Your task to perform on an android device: Go to network settings Image 0: 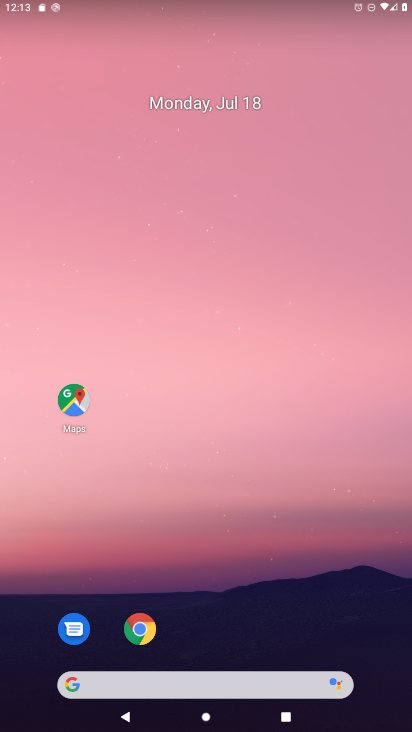
Step 0: drag from (203, 686) to (360, 72)
Your task to perform on an android device: Go to network settings Image 1: 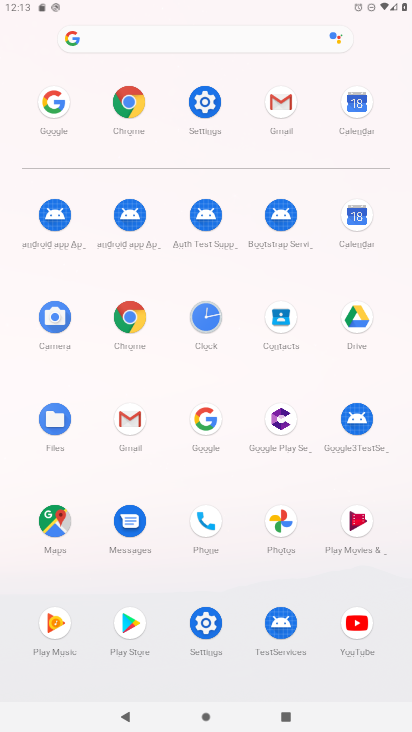
Step 1: click (204, 101)
Your task to perform on an android device: Go to network settings Image 2: 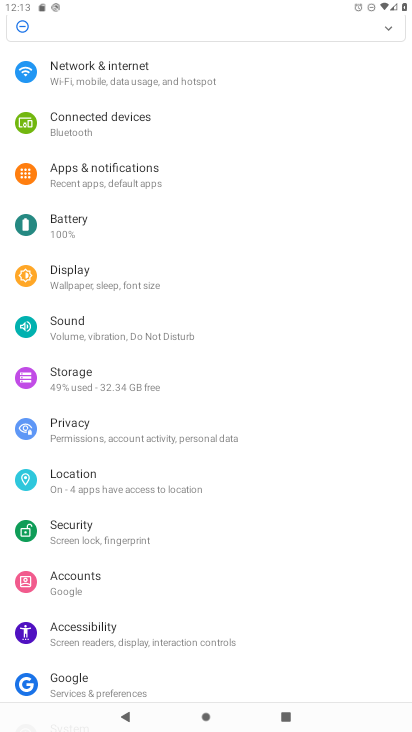
Step 2: click (148, 82)
Your task to perform on an android device: Go to network settings Image 3: 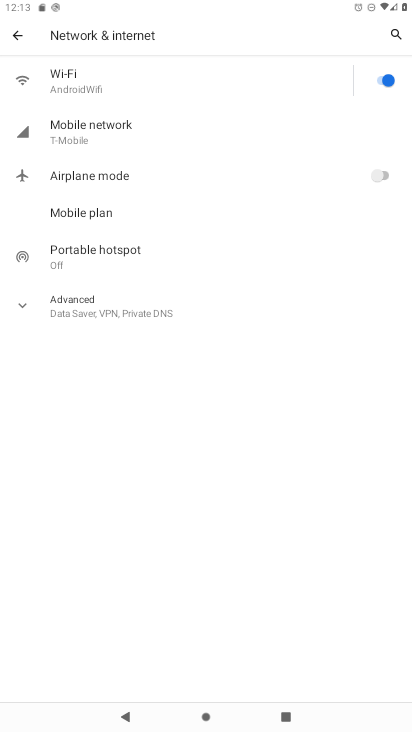
Step 3: task complete